Your task to perform on an android device: Find coffee shops on Maps Image 0: 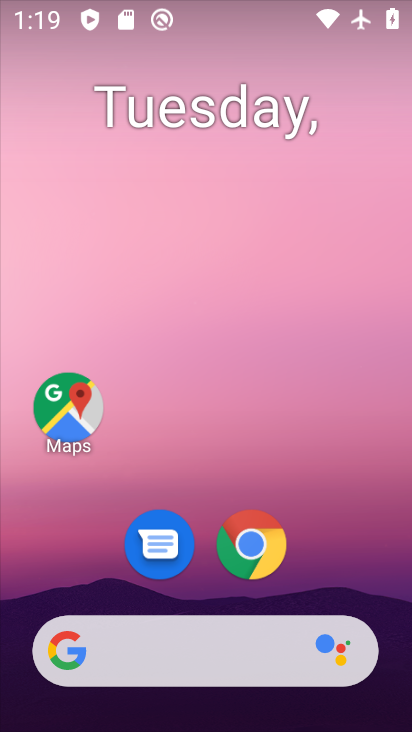
Step 0: click (68, 413)
Your task to perform on an android device: Find coffee shops on Maps Image 1: 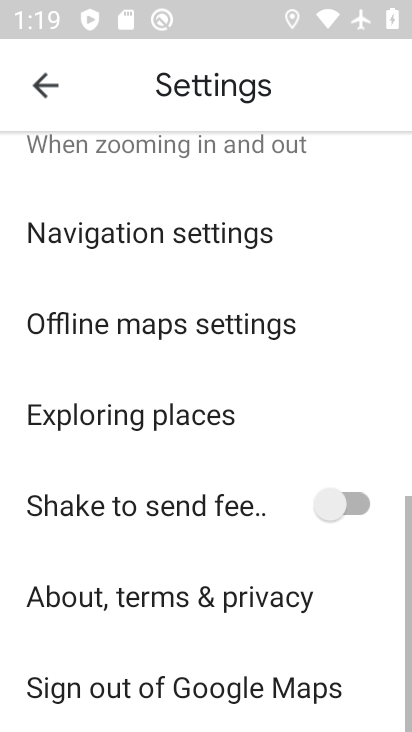
Step 1: press back button
Your task to perform on an android device: Find coffee shops on Maps Image 2: 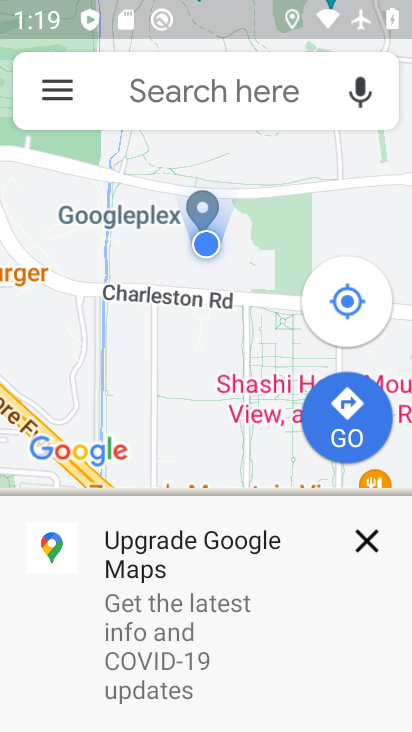
Step 2: click (181, 93)
Your task to perform on an android device: Find coffee shops on Maps Image 3: 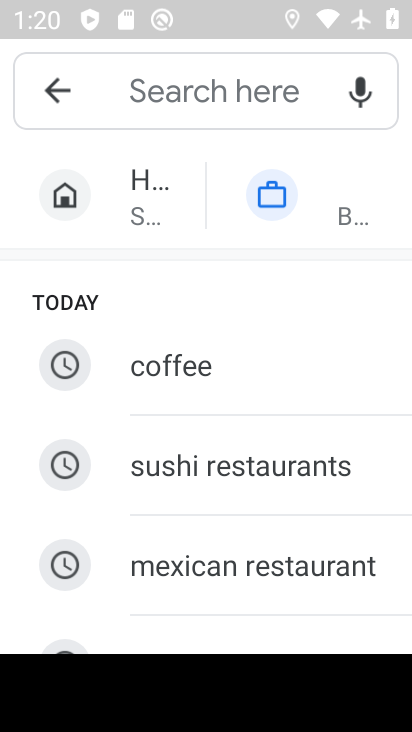
Step 3: type "coffee shop"
Your task to perform on an android device: Find coffee shops on Maps Image 4: 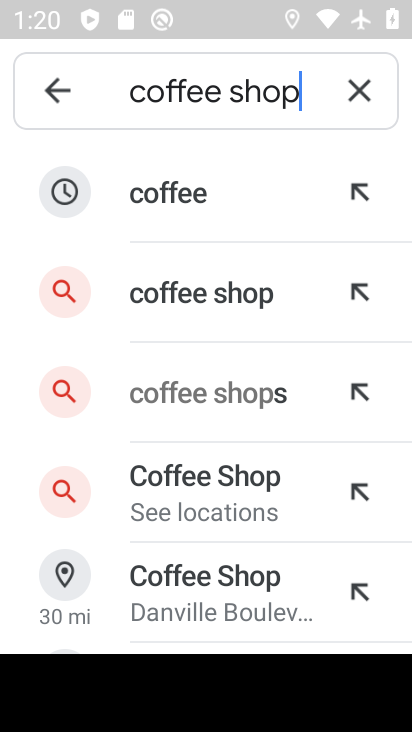
Step 4: click (207, 300)
Your task to perform on an android device: Find coffee shops on Maps Image 5: 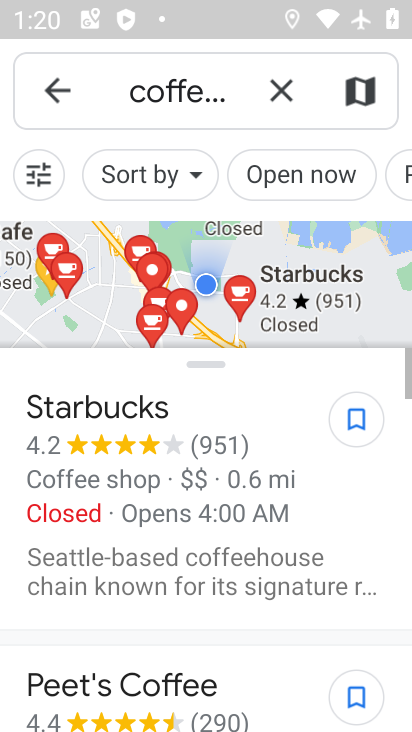
Step 5: task complete